Your task to perform on an android device: Open internet settings Image 0: 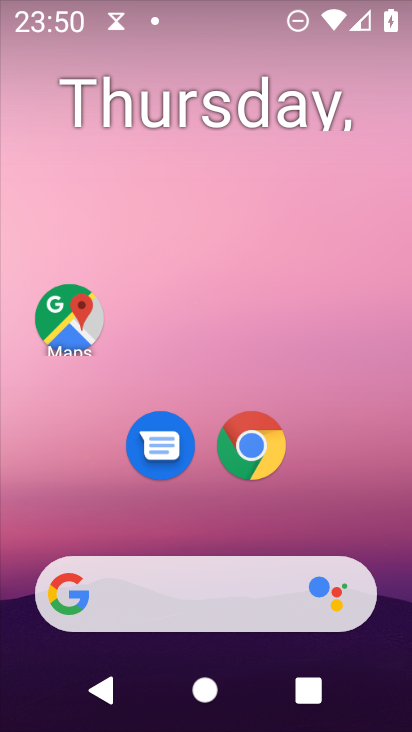
Step 0: drag from (235, 723) to (221, 94)
Your task to perform on an android device: Open internet settings Image 1: 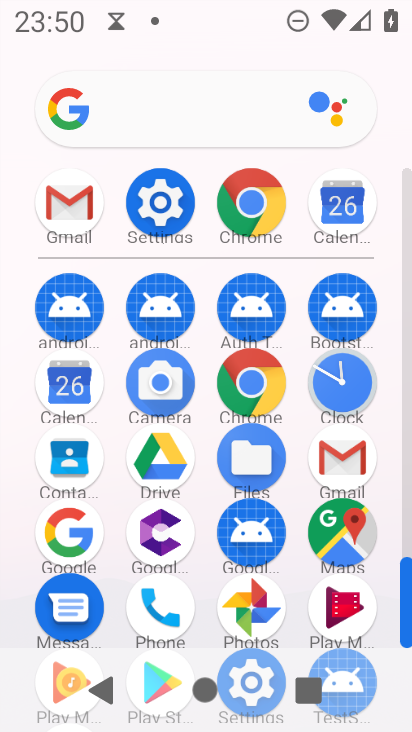
Step 1: click (165, 209)
Your task to perform on an android device: Open internet settings Image 2: 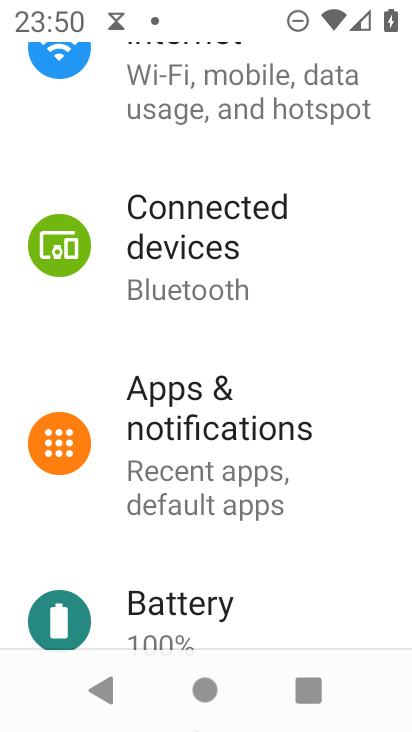
Step 2: drag from (327, 176) to (300, 638)
Your task to perform on an android device: Open internet settings Image 3: 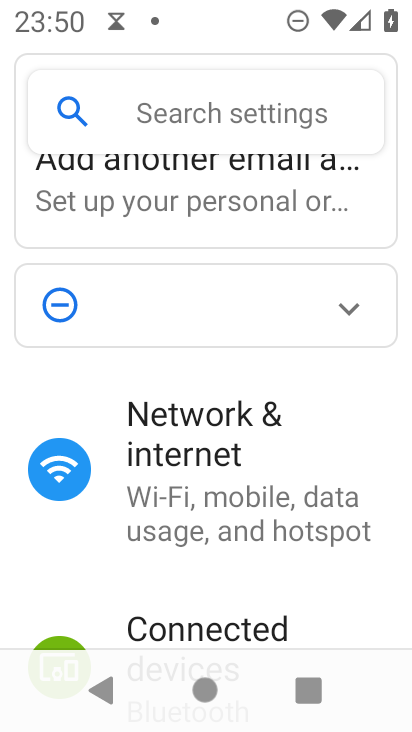
Step 3: click (179, 452)
Your task to perform on an android device: Open internet settings Image 4: 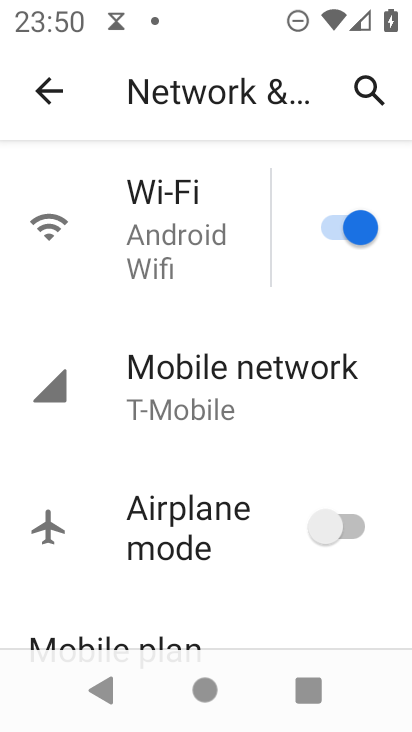
Step 4: task complete